Your task to perform on an android device: uninstall "Upside-Cash back on gas & food" Image 0: 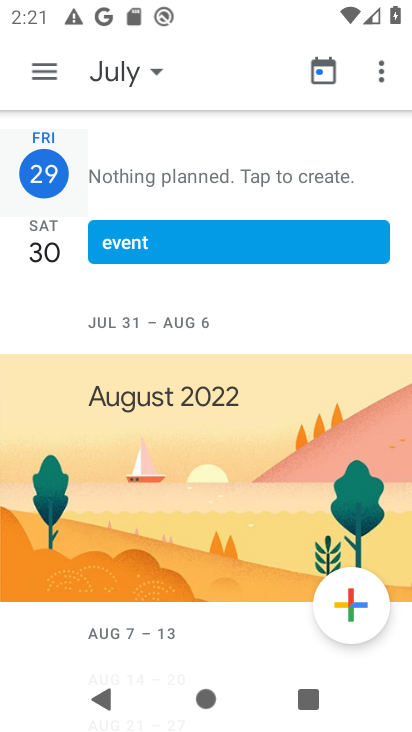
Step 0: press home button
Your task to perform on an android device: uninstall "Upside-Cash back on gas & food" Image 1: 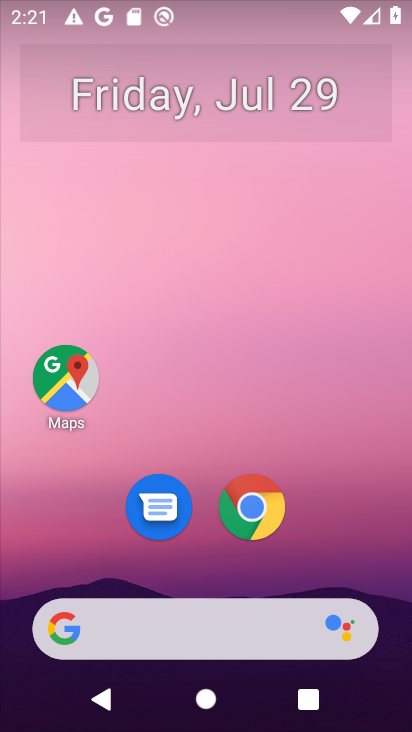
Step 1: click (177, 644)
Your task to perform on an android device: uninstall "Upside-Cash back on gas & food" Image 2: 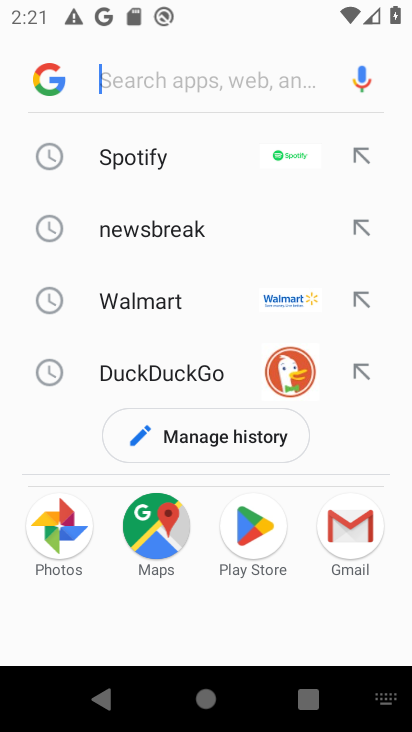
Step 2: type "udise"
Your task to perform on an android device: uninstall "Upside-Cash back on gas & food" Image 3: 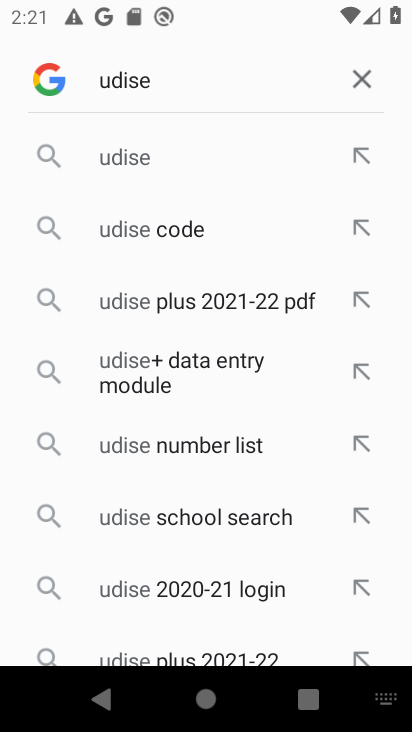
Step 3: click (175, 173)
Your task to perform on an android device: uninstall "Upside-Cash back on gas & food" Image 4: 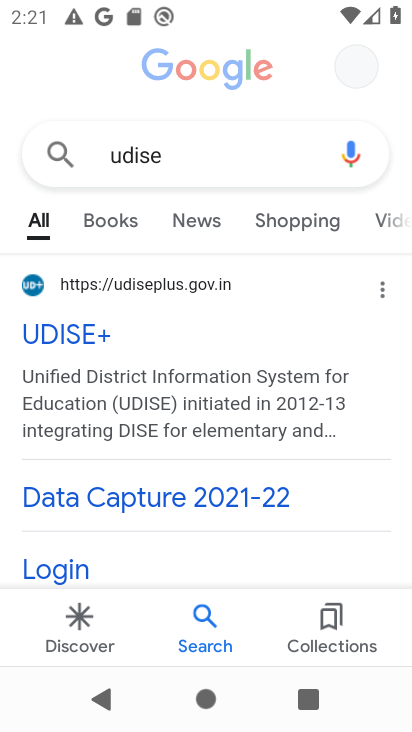
Step 4: task complete